Your task to perform on an android device: Go to display settings Image 0: 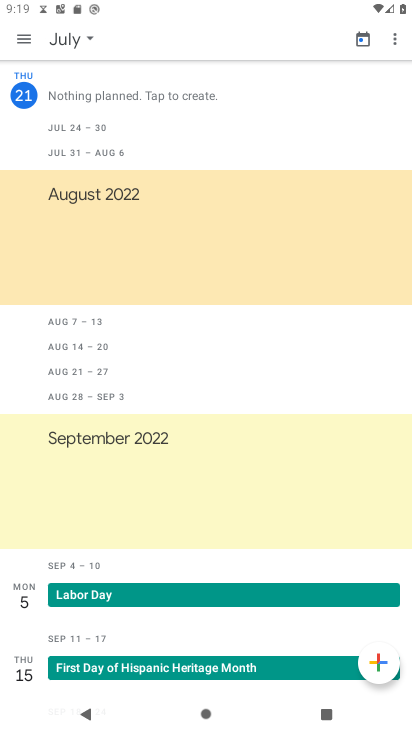
Step 0: press home button
Your task to perform on an android device: Go to display settings Image 1: 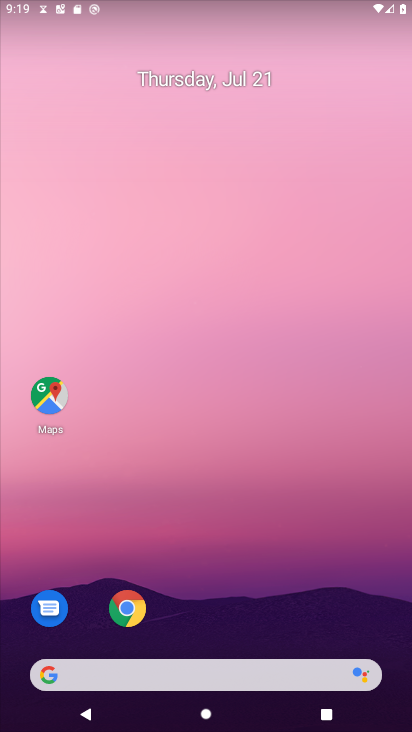
Step 1: drag from (163, 591) to (159, 273)
Your task to perform on an android device: Go to display settings Image 2: 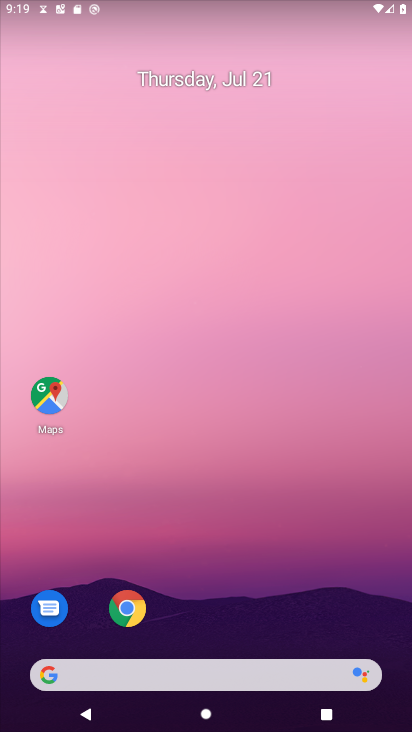
Step 2: drag from (205, 511) to (203, 49)
Your task to perform on an android device: Go to display settings Image 3: 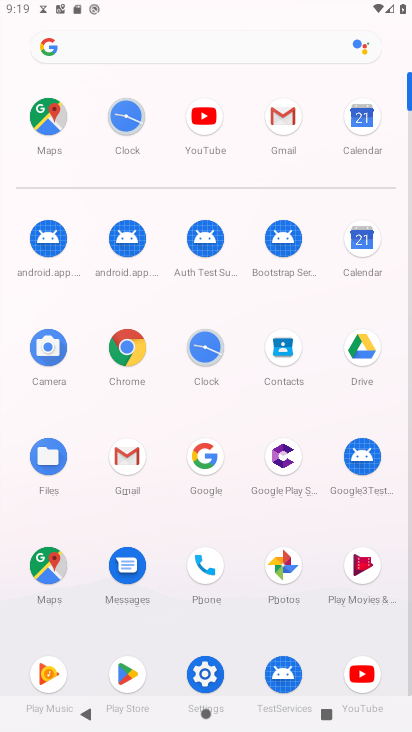
Step 3: click (210, 664)
Your task to perform on an android device: Go to display settings Image 4: 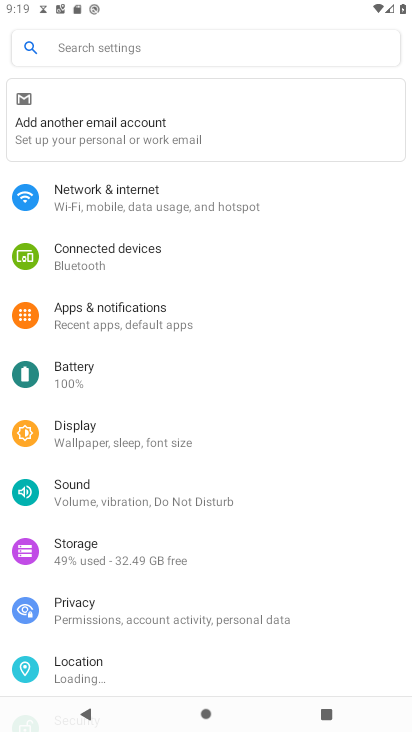
Step 4: click (107, 438)
Your task to perform on an android device: Go to display settings Image 5: 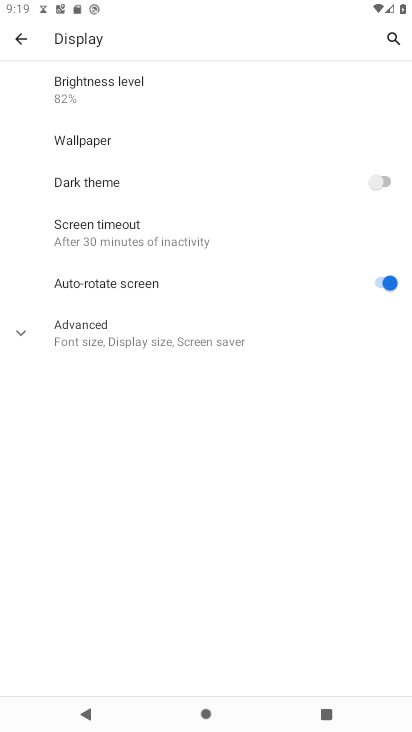
Step 5: task complete